Your task to perform on an android device: change alarm snooze length Image 0: 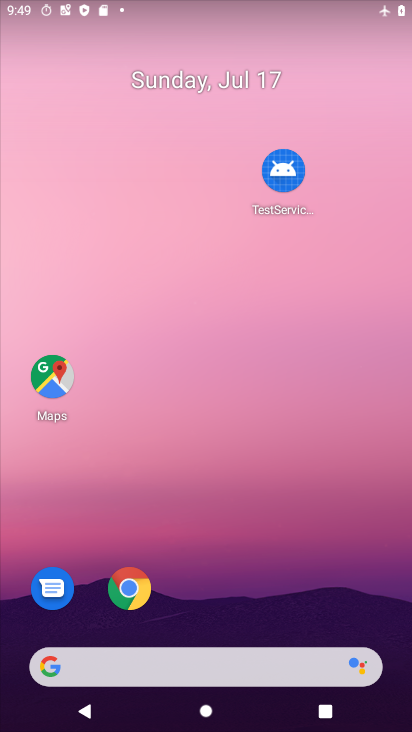
Step 0: click (279, 234)
Your task to perform on an android device: change alarm snooze length Image 1: 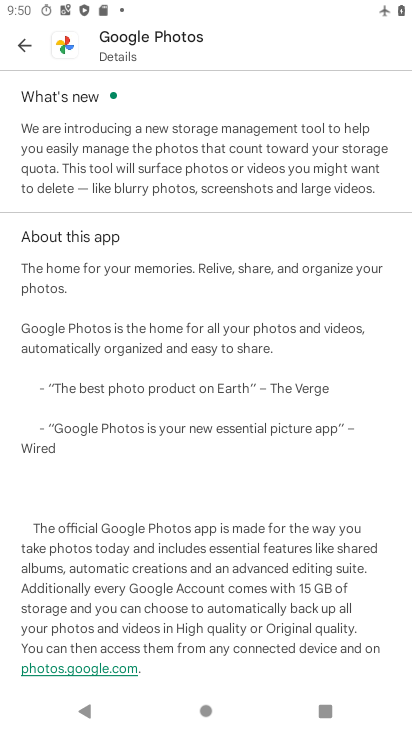
Step 1: press home button
Your task to perform on an android device: change alarm snooze length Image 2: 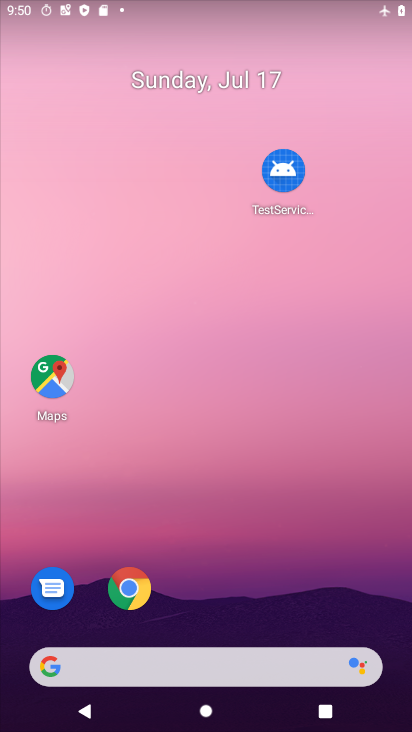
Step 2: drag from (249, 627) to (280, 210)
Your task to perform on an android device: change alarm snooze length Image 3: 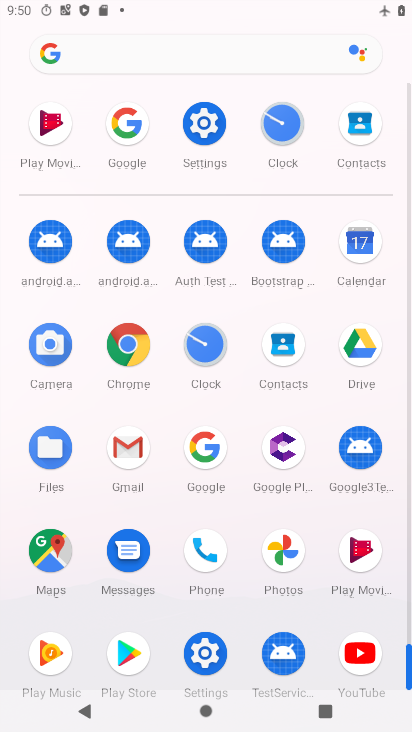
Step 3: click (289, 133)
Your task to perform on an android device: change alarm snooze length Image 4: 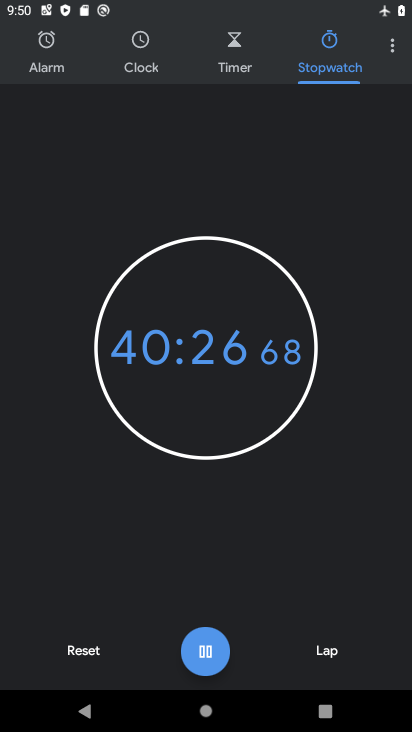
Step 4: click (387, 52)
Your task to perform on an android device: change alarm snooze length Image 5: 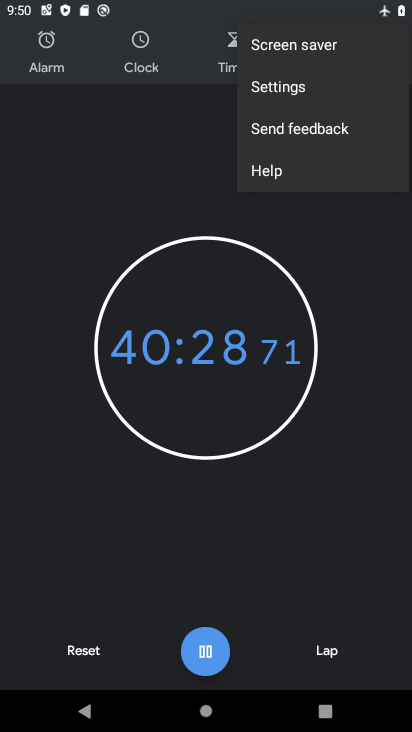
Step 5: click (311, 97)
Your task to perform on an android device: change alarm snooze length Image 6: 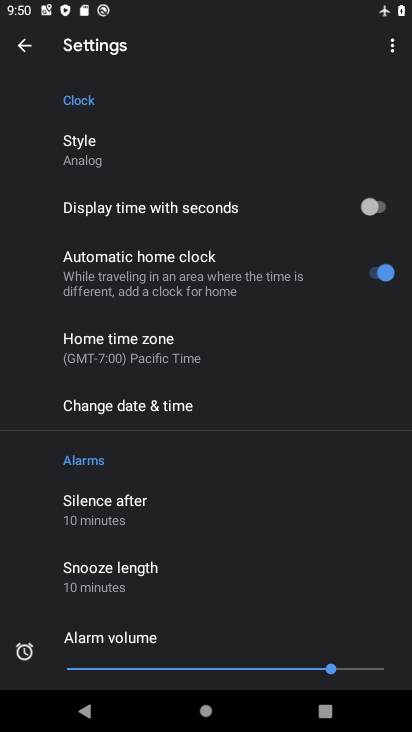
Step 6: click (155, 576)
Your task to perform on an android device: change alarm snooze length Image 7: 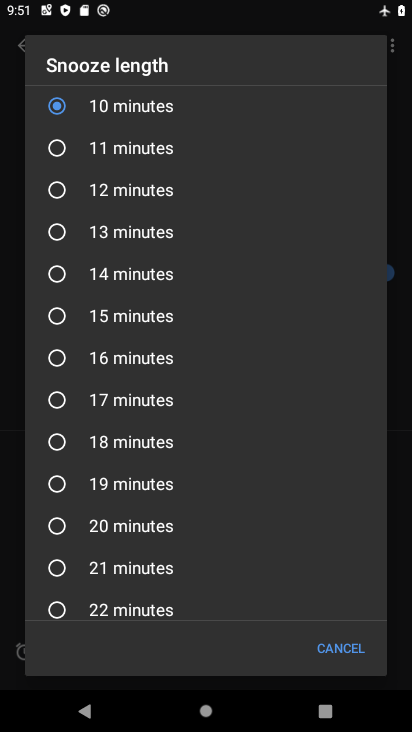
Step 7: click (70, 196)
Your task to perform on an android device: change alarm snooze length Image 8: 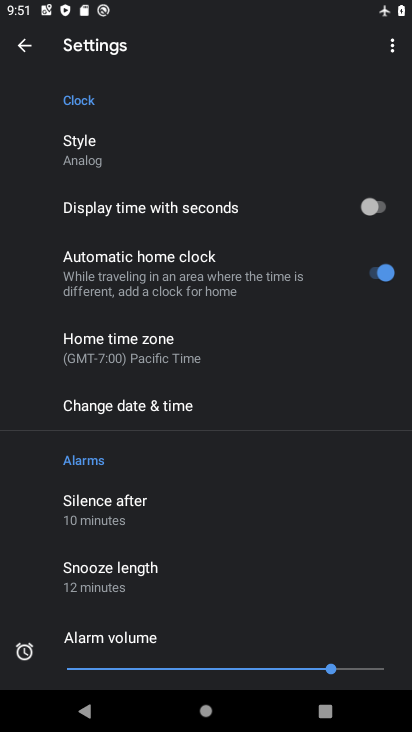
Step 8: task complete